Your task to perform on an android device: Go to Amazon Image 0: 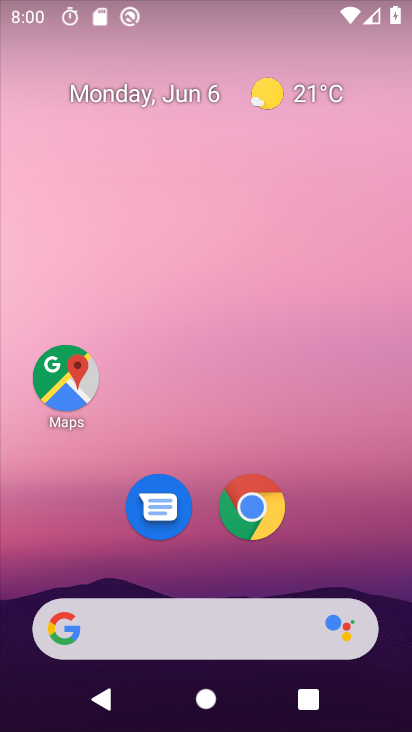
Step 0: click (236, 517)
Your task to perform on an android device: Go to Amazon Image 1: 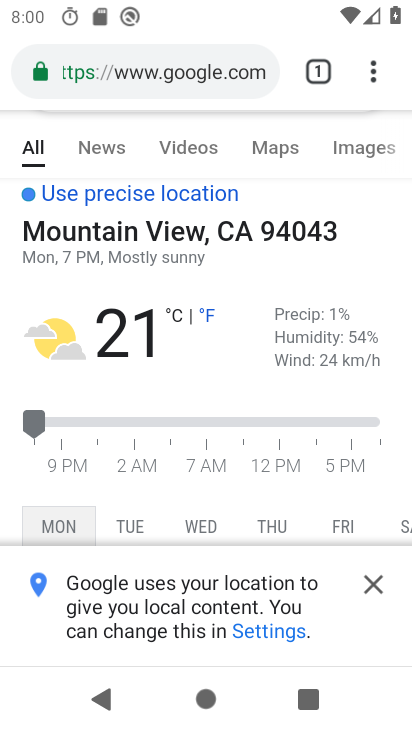
Step 1: click (242, 73)
Your task to perform on an android device: Go to Amazon Image 2: 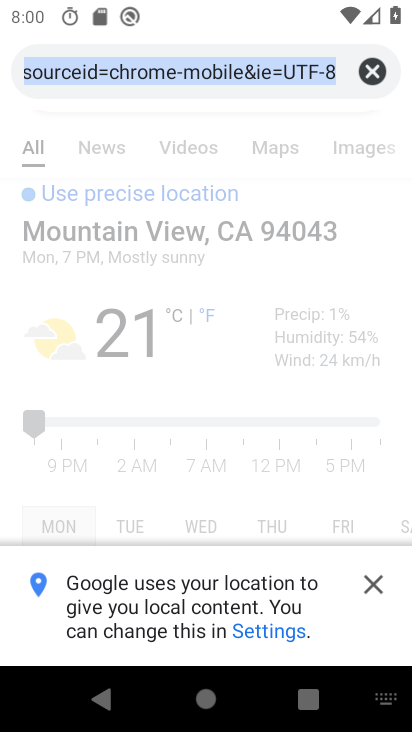
Step 2: type "amazon"
Your task to perform on an android device: Go to Amazon Image 3: 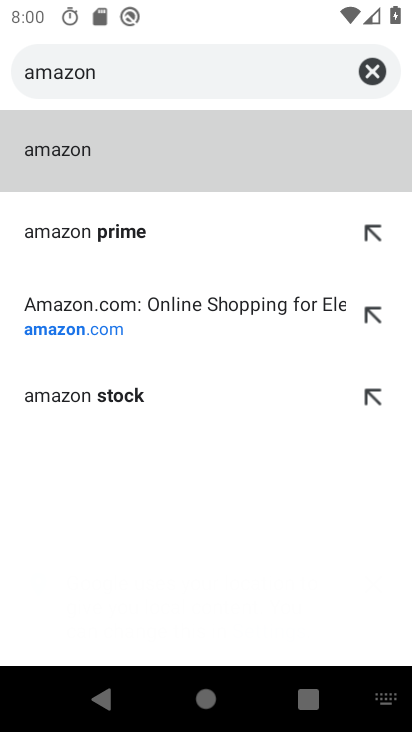
Step 3: click (226, 323)
Your task to perform on an android device: Go to Amazon Image 4: 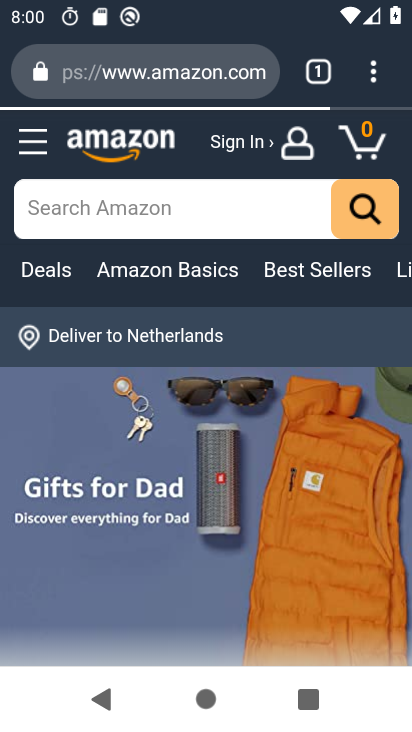
Step 4: task complete